Your task to perform on an android device: Is it going to rain tomorrow? Image 0: 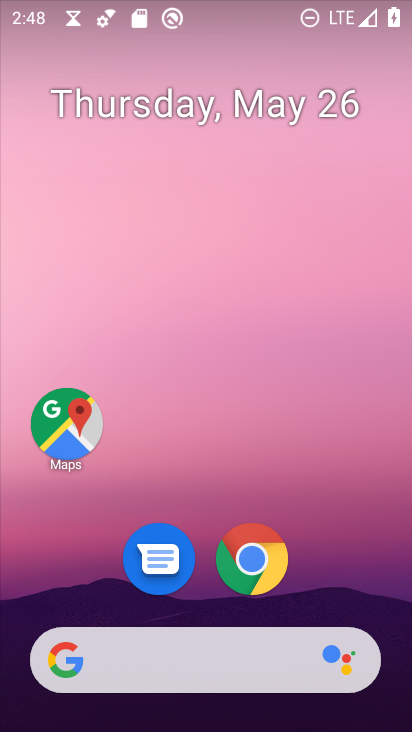
Step 0: click (77, 660)
Your task to perform on an android device: Is it going to rain tomorrow? Image 1: 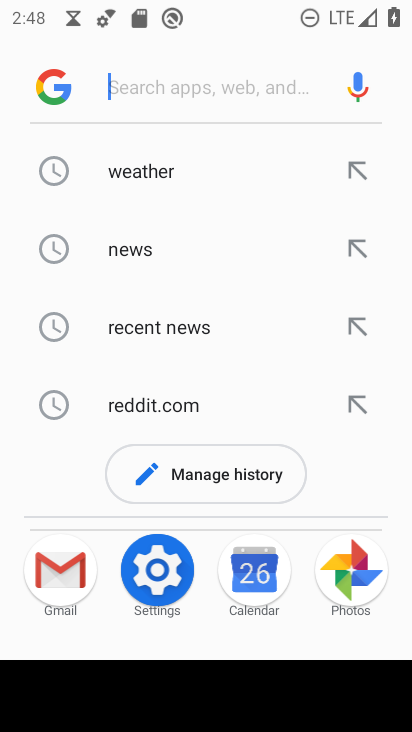
Step 1: click (144, 164)
Your task to perform on an android device: Is it going to rain tomorrow? Image 2: 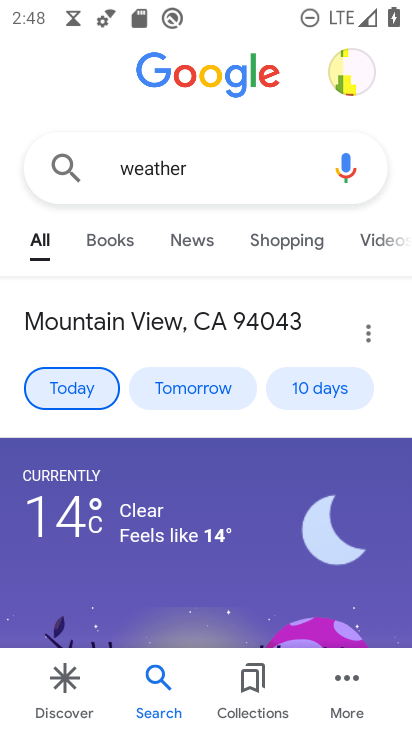
Step 2: click (206, 389)
Your task to perform on an android device: Is it going to rain tomorrow? Image 3: 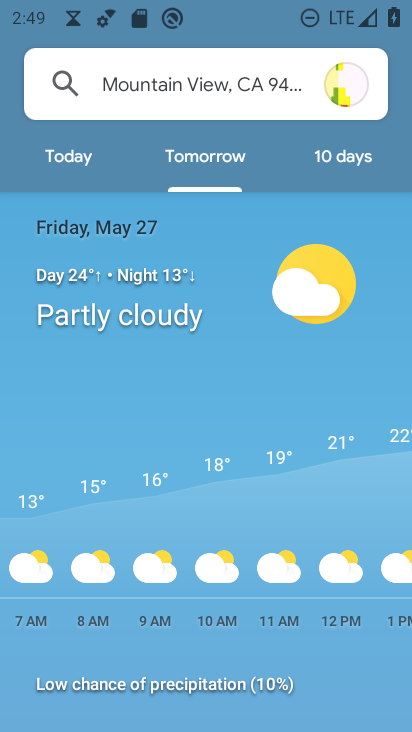
Step 3: task complete